Your task to perform on an android device: Open a new tab in Chrome Image 0: 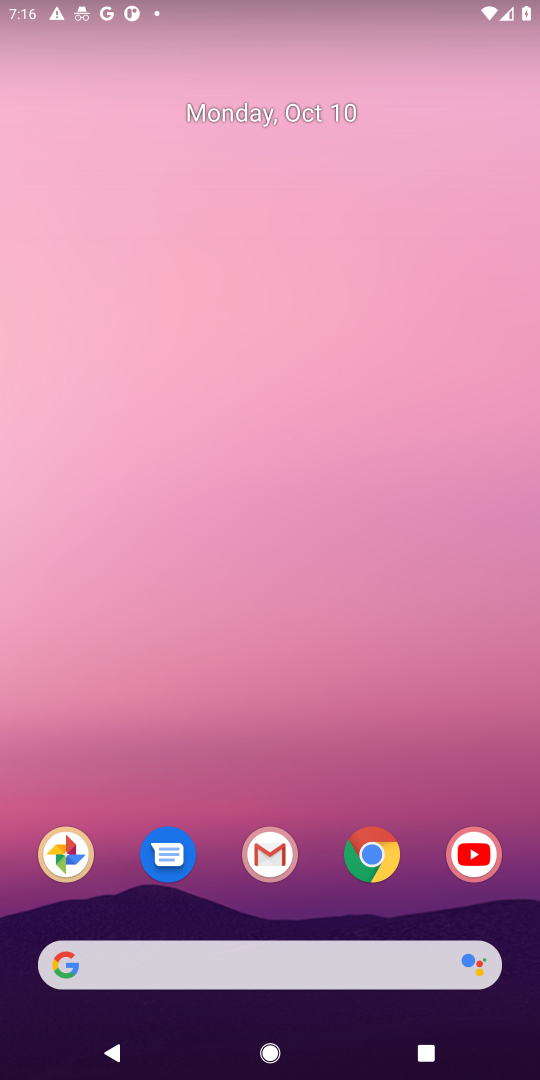
Step 0: click (373, 859)
Your task to perform on an android device: Open a new tab in Chrome Image 1: 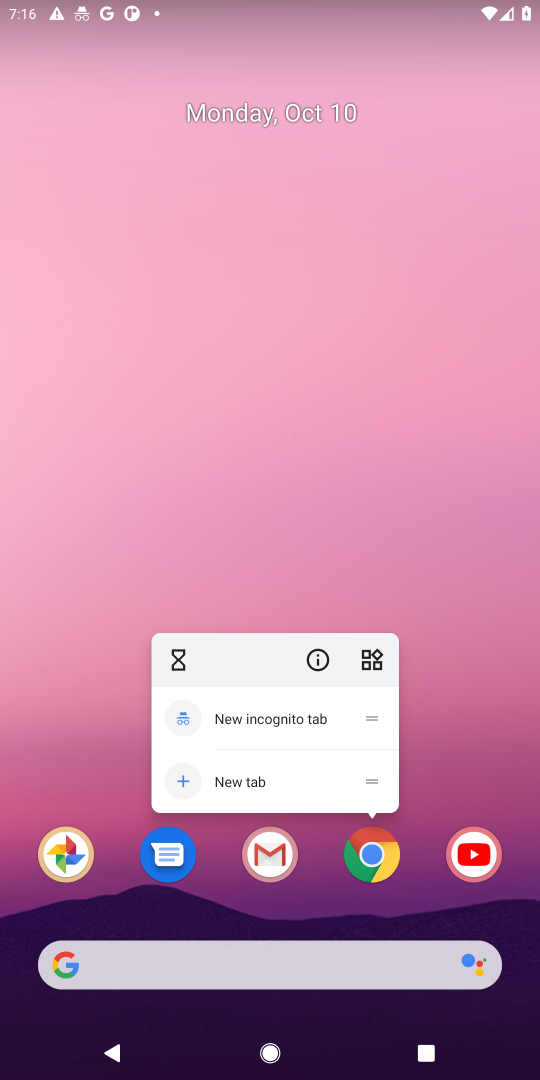
Step 1: click (373, 859)
Your task to perform on an android device: Open a new tab in Chrome Image 2: 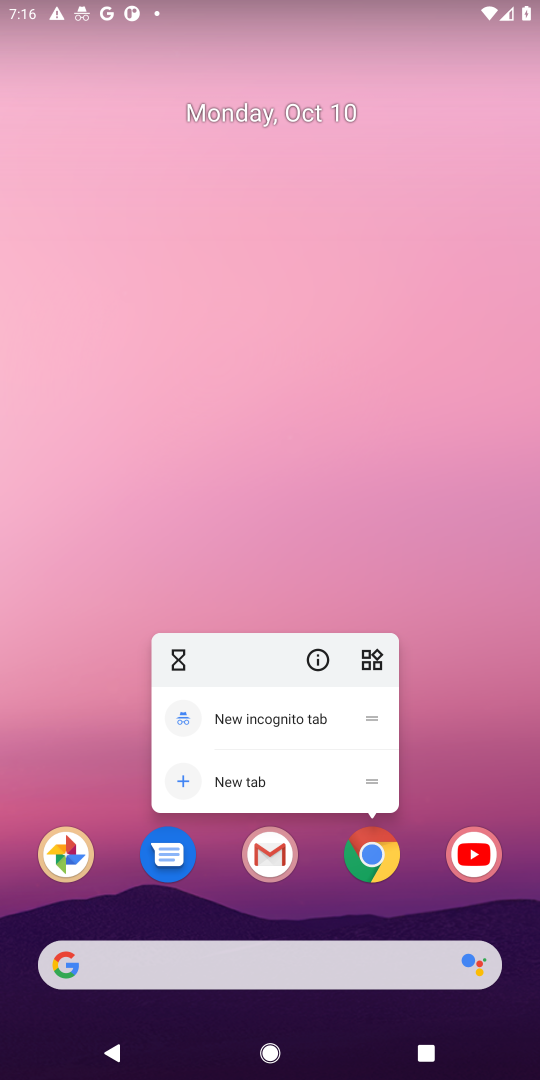
Step 2: click (373, 862)
Your task to perform on an android device: Open a new tab in Chrome Image 3: 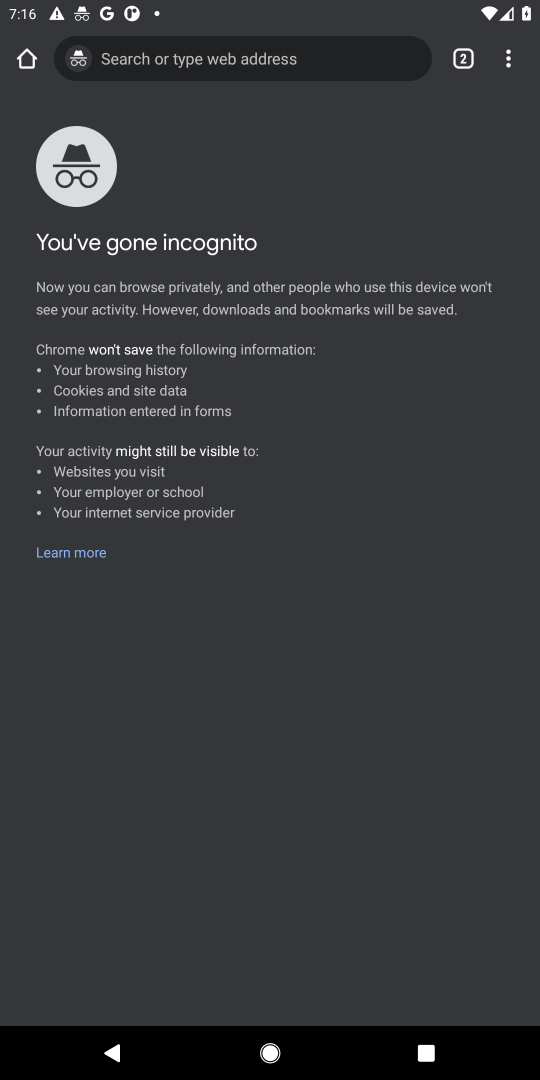
Step 3: task complete